Your task to perform on an android device: Open accessibility settings Image 0: 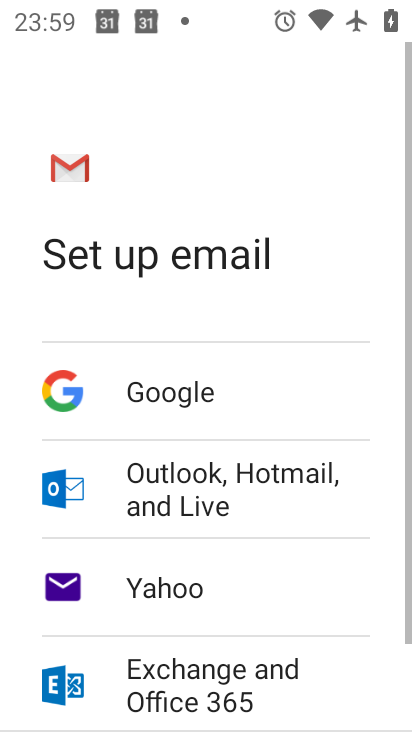
Step 0: press home button
Your task to perform on an android device: Open accessibility settings Image 1: 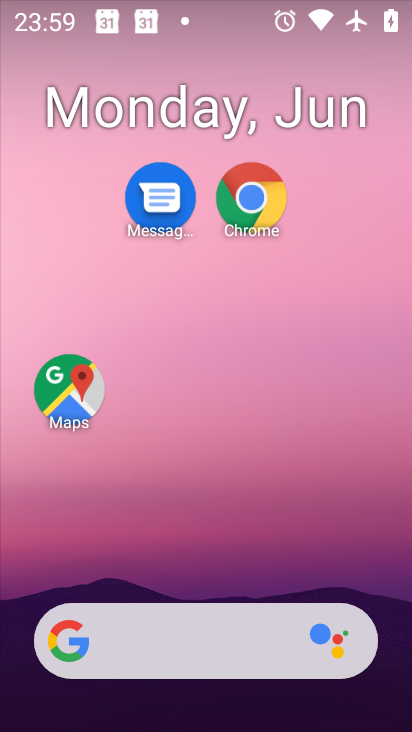
Step 1: drag from (211, 562) to (192, 234)
Your task to perform on an android device: Open accessibility settings Image 2: 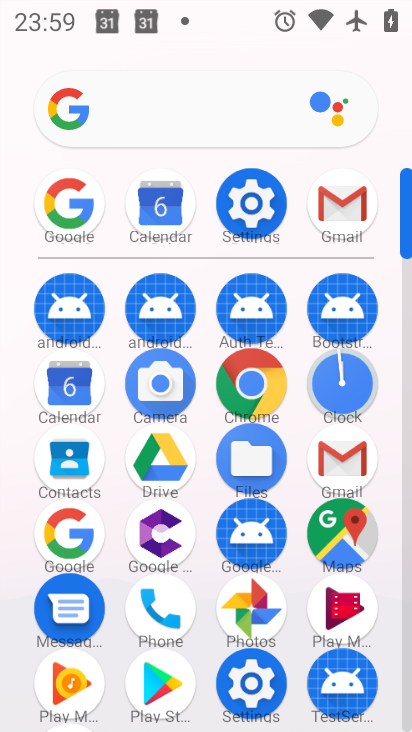
Step 2: click (242, 220)
Your task to perform on an android device: Open accessibility settings Image 3: 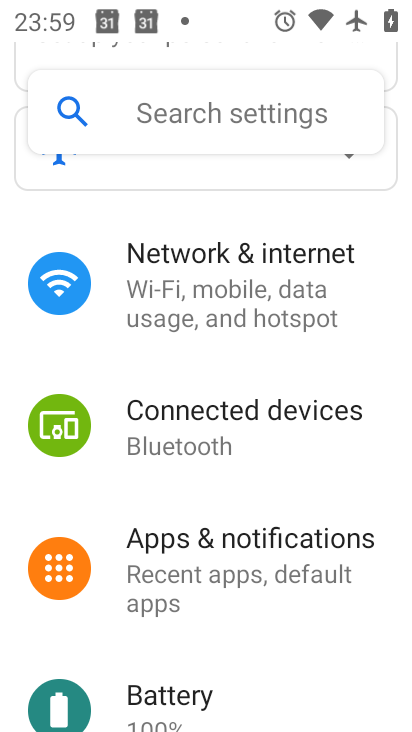
Step 3: drag from (164, 675) to (162, 444)
Your task to perform on an android device: Open accessibility settings Image 4: 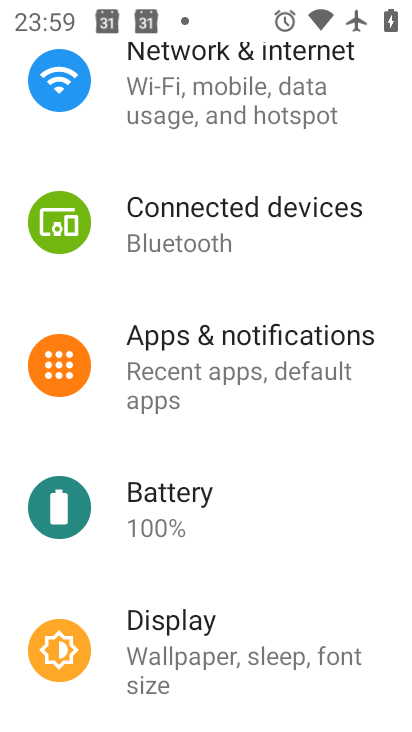
Step 4: drag from (220, 608) to (238, 376)
Your task to perform on an android device: Open accessibility settings Image 5: 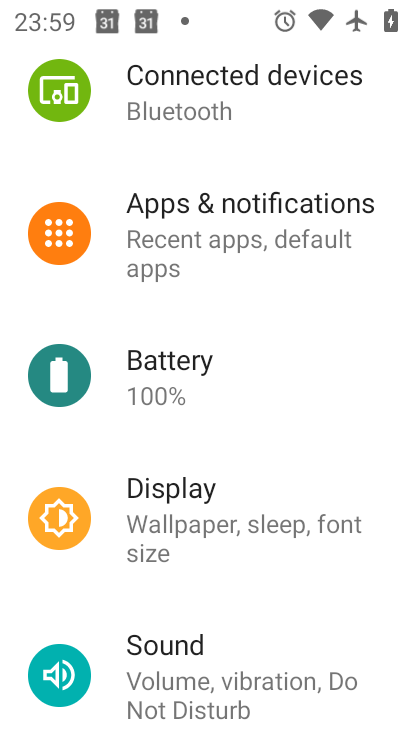
Step 5: drag from (213, 619) to (225, 385)
Your task to perform on an android device: Open accessibility settings Image 6: 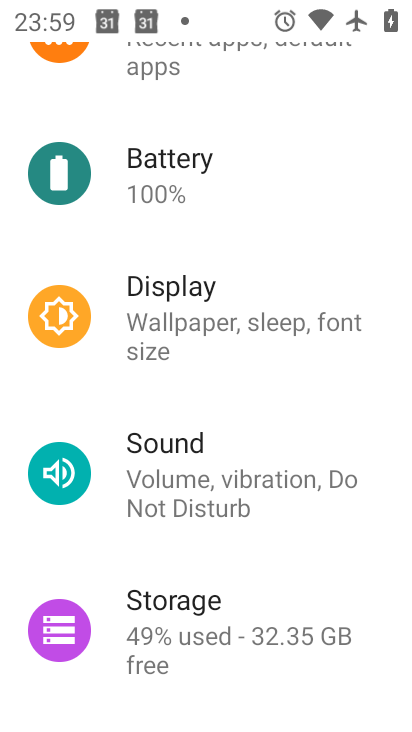
Step 6: drag from (245, 564) to (235, 303)
Your task to perform on an android device: Open accessibility settings Image 7: 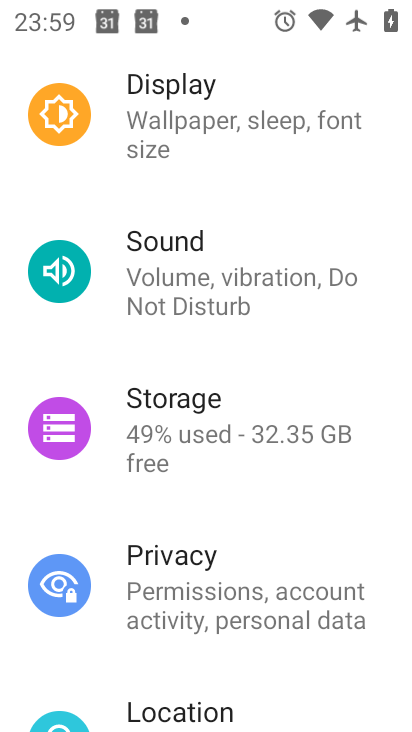
Step 7: drag from (242, 670) to (271, 307)
Your task to perform on an android device: Open accessibility settings Image 8: 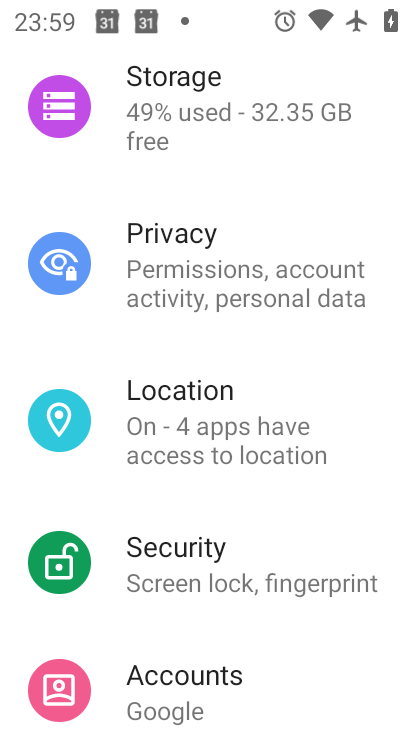
Step 8: drag from (200, 641) to (194, 339)
Your task to perform on an android device: Open accessibility settings Image 9: 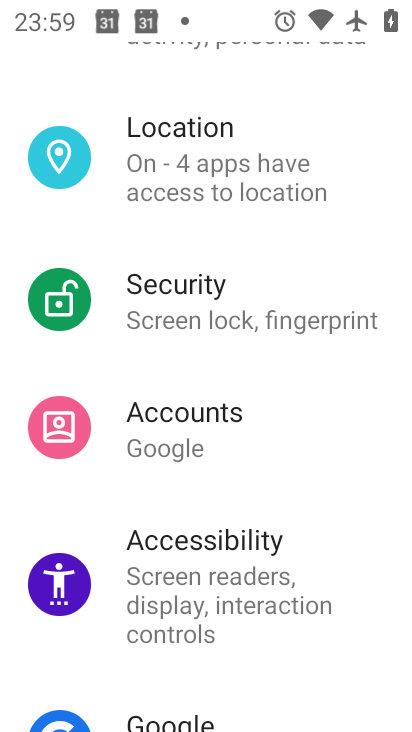
Step 9: click (165, 567)
Your task to perform on an android device: Open accessibility settings Image 10: 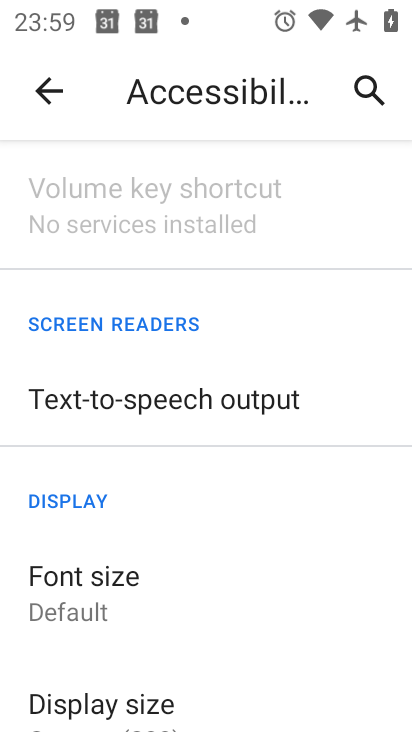
Step 10: task complete